Your task to perform on an android device: change the clock display to digital Image 0: 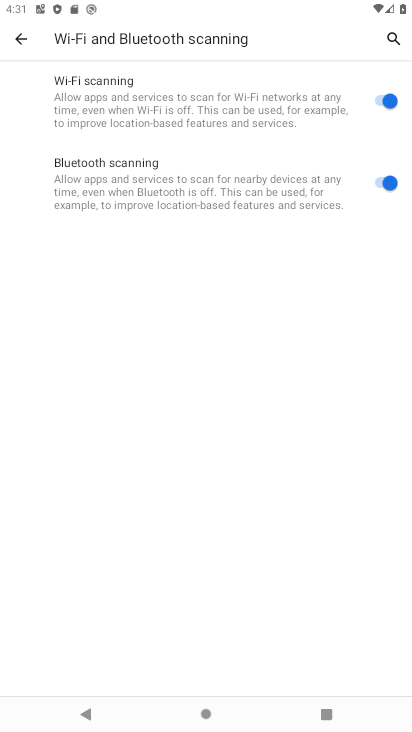
Step 0: task complete